Your task to perform on an android device: Go to sound settings Image 0: 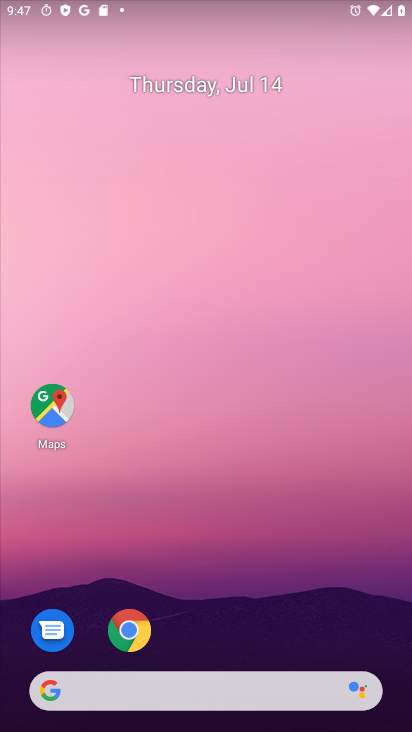
Step 0: click (83, 699)
Your task to perform on an android device: Go to sound settings Image 1: 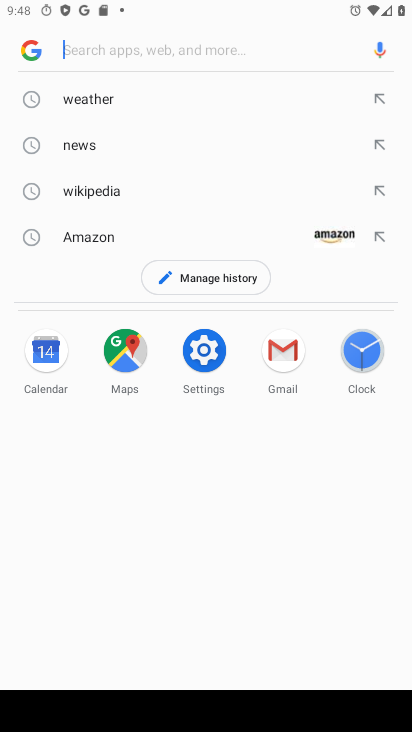
Step 1: press home button
Your task to perform on an android device: Go to sound settings Image 2: 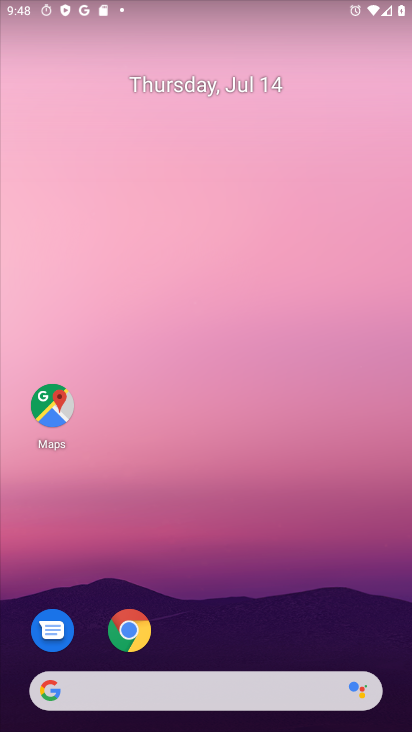
Step 2: drag from (16, 709) to (125, 247)
Your task to perform on an android device: Go to sound settings Image 3: 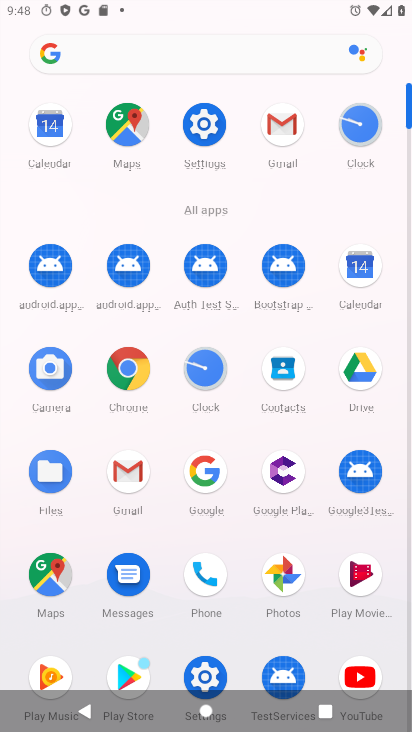
Step 3: click (191, 672)
Your task to perform on an android device: Go to sound settings Image 4: 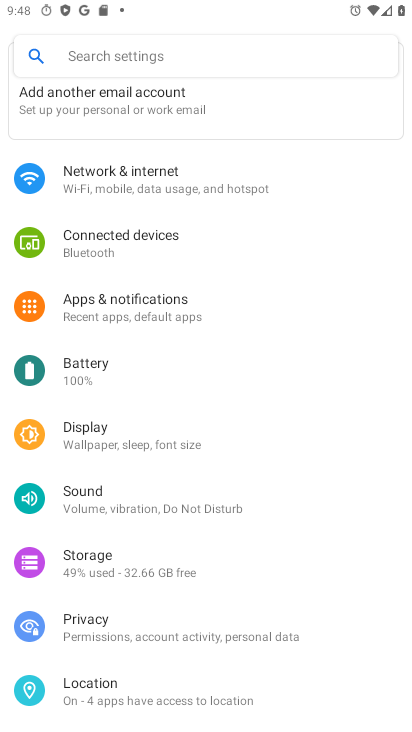
Step 4: click (80, 511)
Your task to perform on an android device: Go to sound settings Image 5: 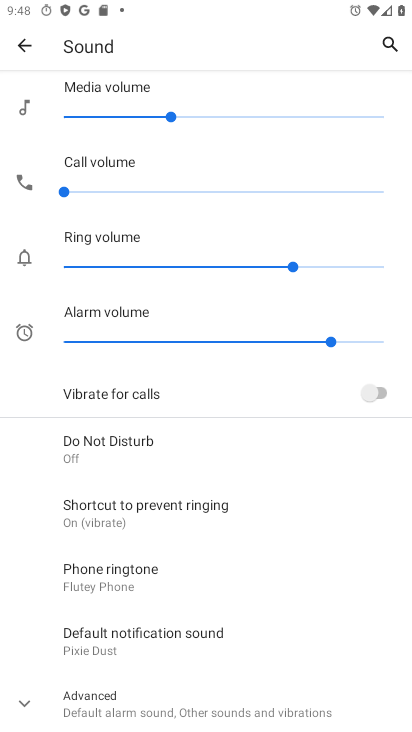
Step 5: task complete